Your task to perform on an android device: check android version Image 0: 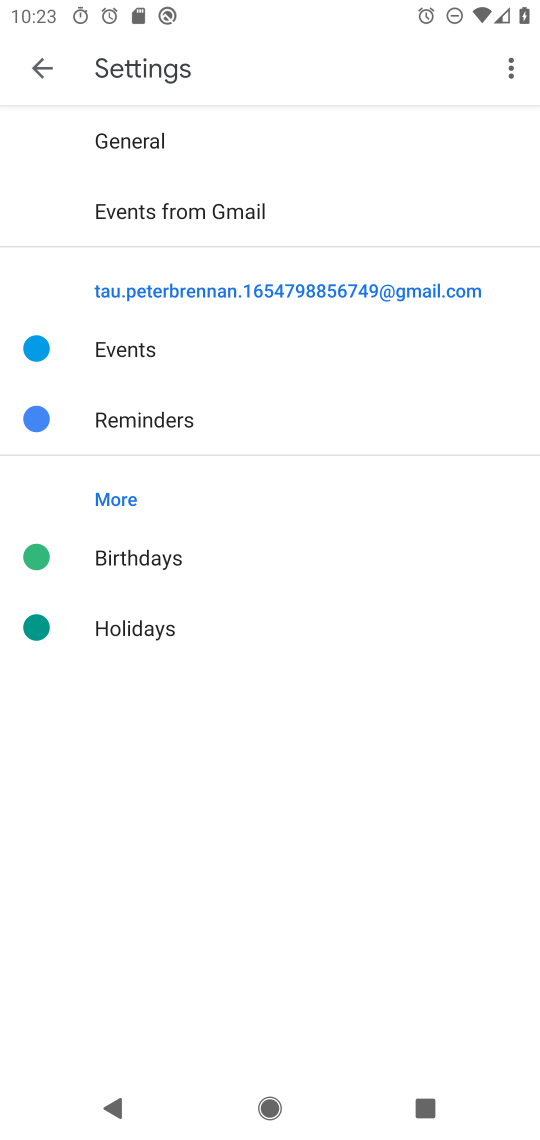
Step 0: press home button
Your task to perform on an android device: check android version Image 1: 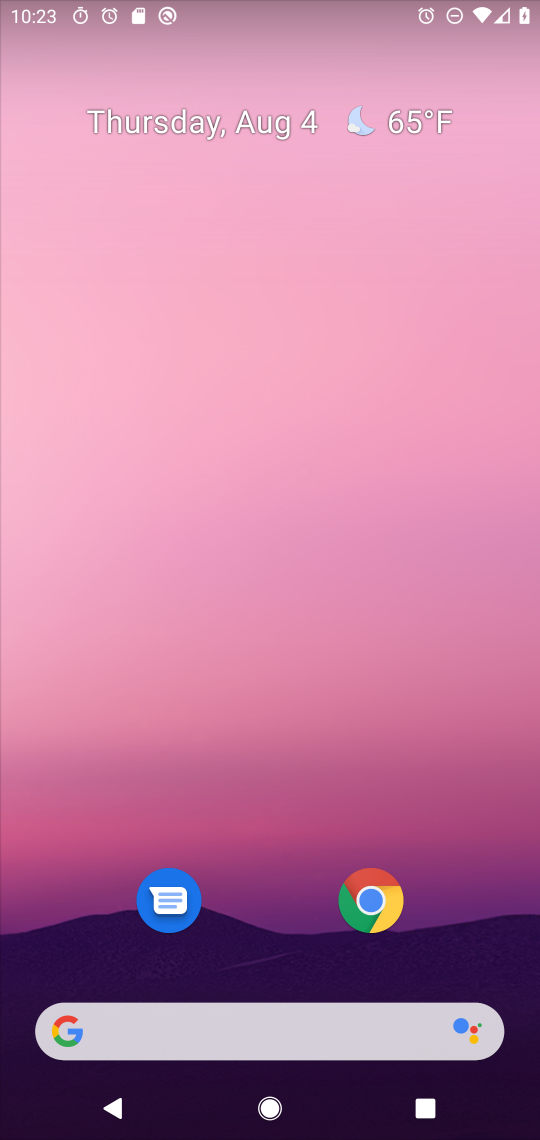
Step 1: drag from (256, 1015) to (272, 141)
Your task to perform on an android device: check android version Image 2: 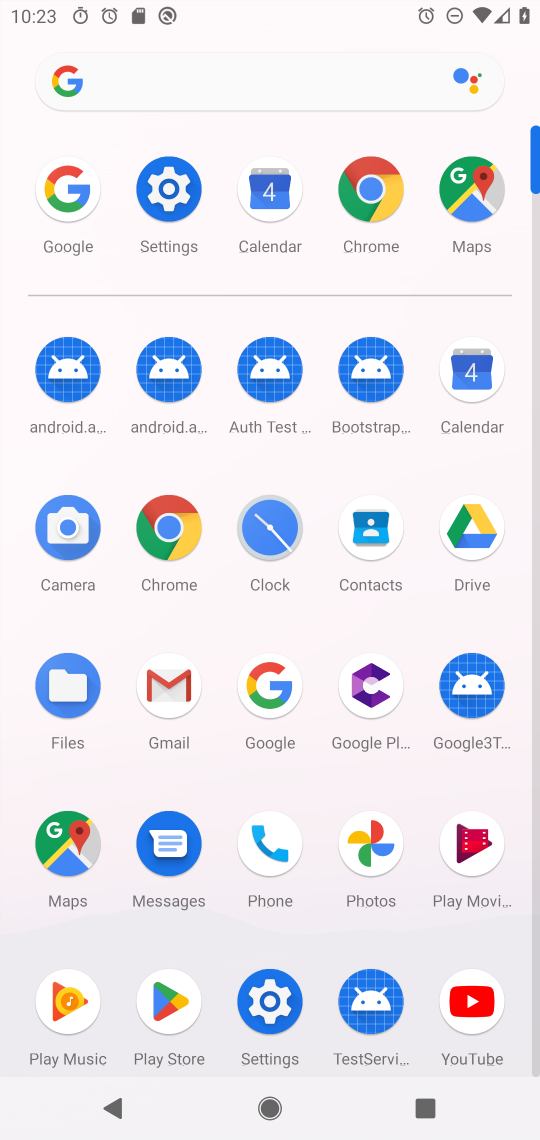
Step 2: click (167, 187)
Your task to perform on an android device: check android version Image 3: 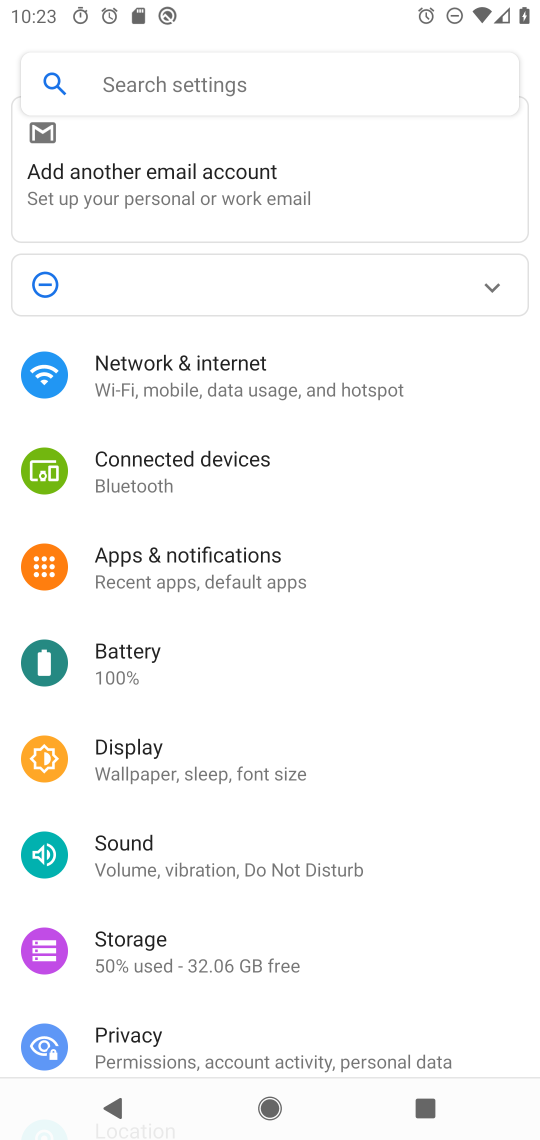
Step 3: drag from (179, 991) to (317, 540)
Your task to perform on an android device: check android version Image 4: 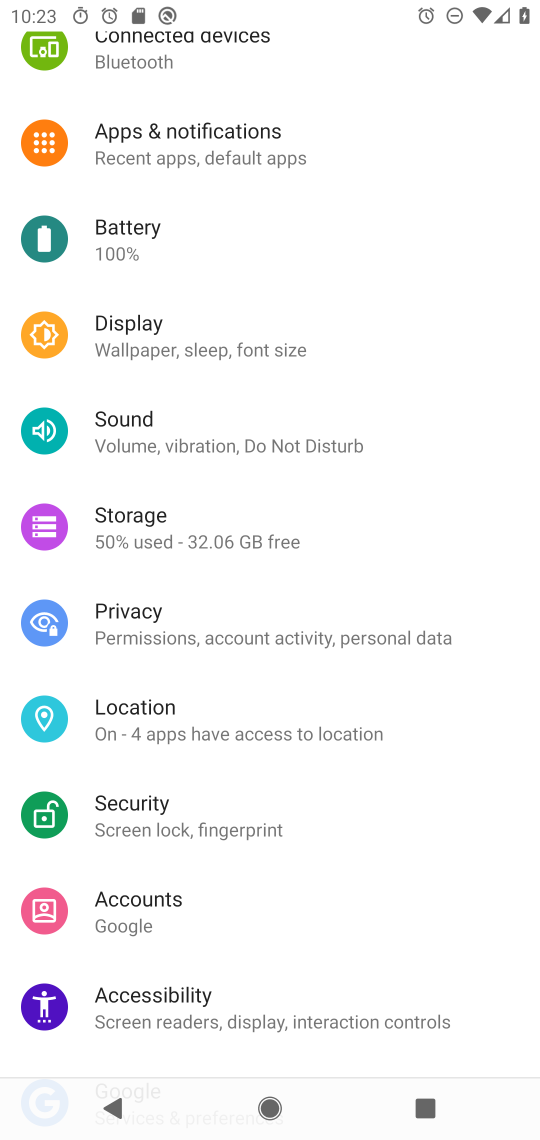
Step 4: drag from (147, 839) to (164, 600)
Your task to perform on an android device: check android version Image 5: 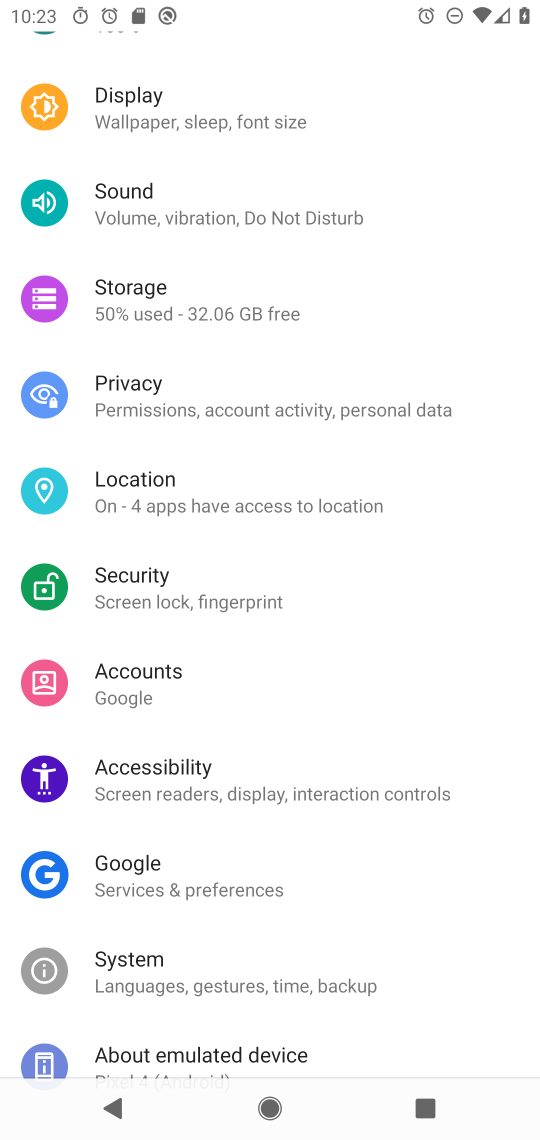
Step 5: drag from (155, 1008) to (252, 813)
Your task to perform on an android device: check android version Image 6: 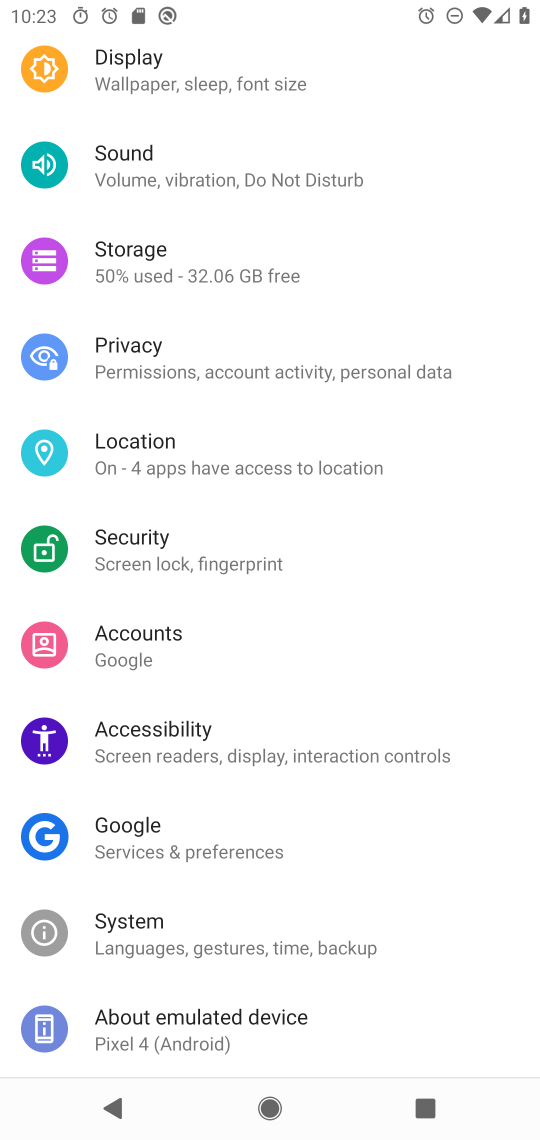
Step 6: click (150, 1023)
Your task to perform on an android device: check android version Image 7: 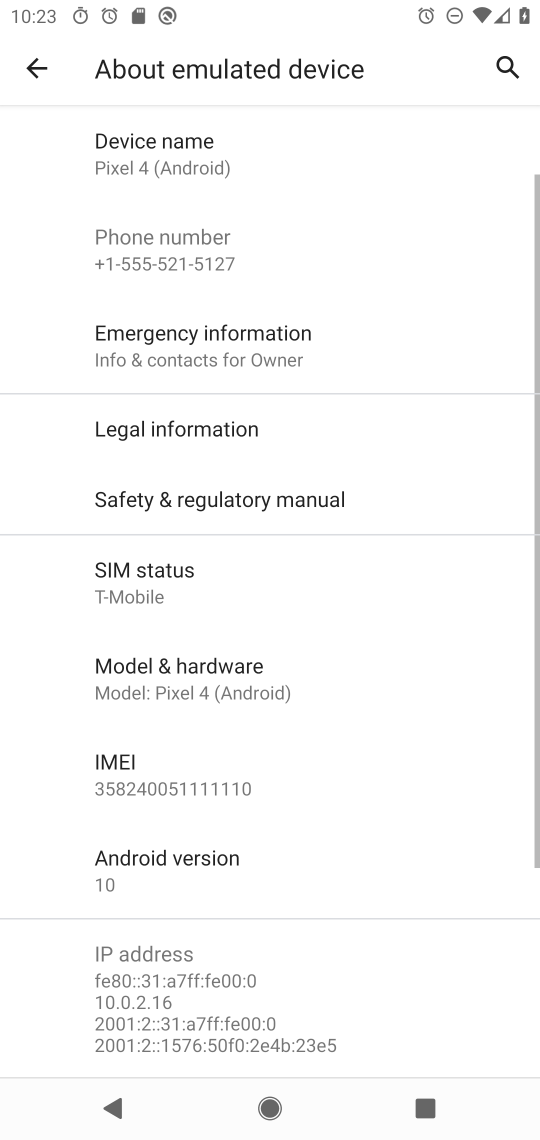
Step 7: click (174, 852)
Your task to perform on an android device: check android version Image 8: 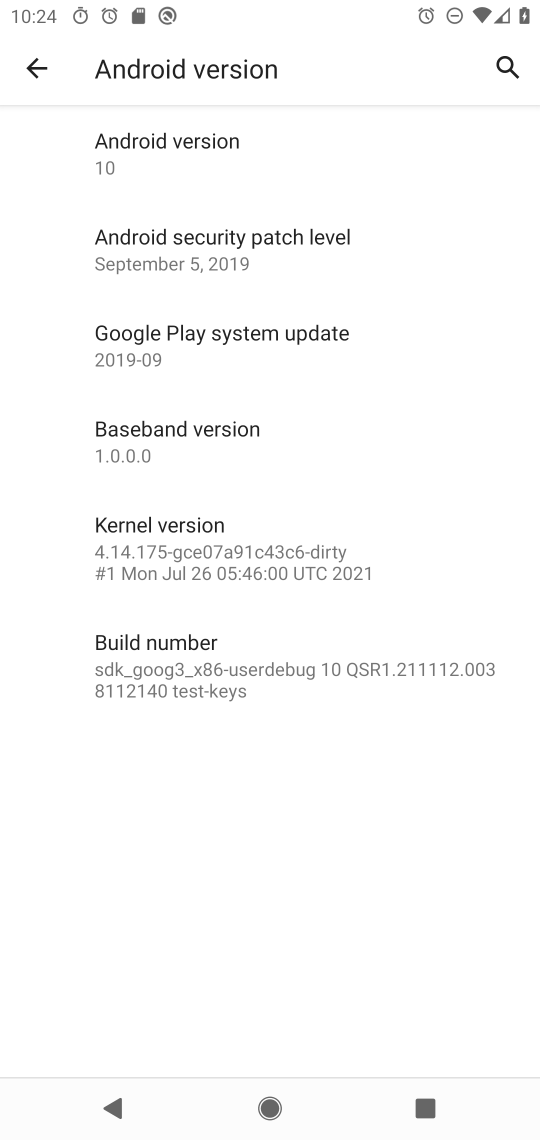
Step 8: task complete